Your task to perform on an android device: turn on the 24-hour format for clock Image 0: 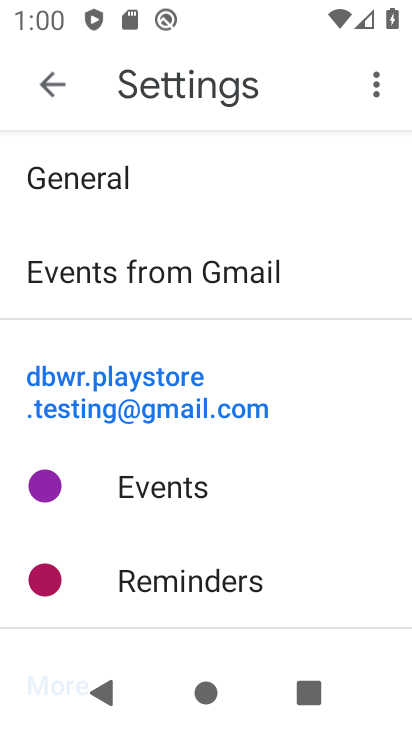
Step 0: press home button
Your task to perform on an android device: turn on the 24-hour format for clock Image 1: 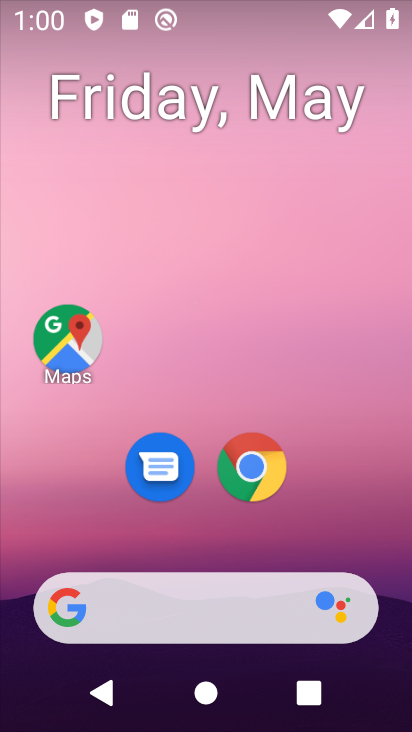
Step 1: drag from (234, 585) to (221, 168)
Your task to perform on an android device: turn on the 24-hour format for clock Image 2: 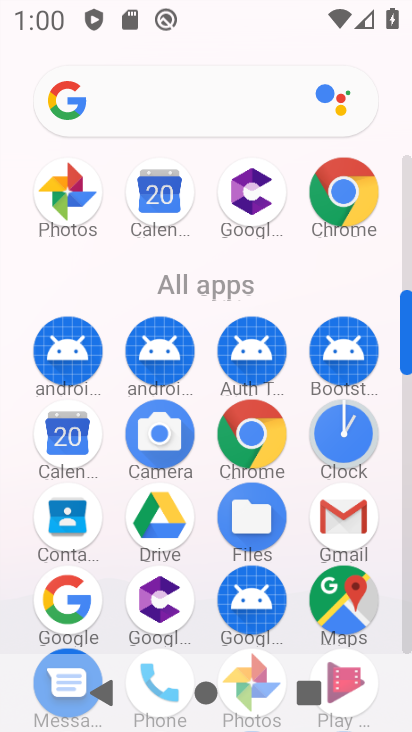
Step 2: click (343, 439)
Your task to perform on an android device: turn on the 24-hour format for clock Image 3: 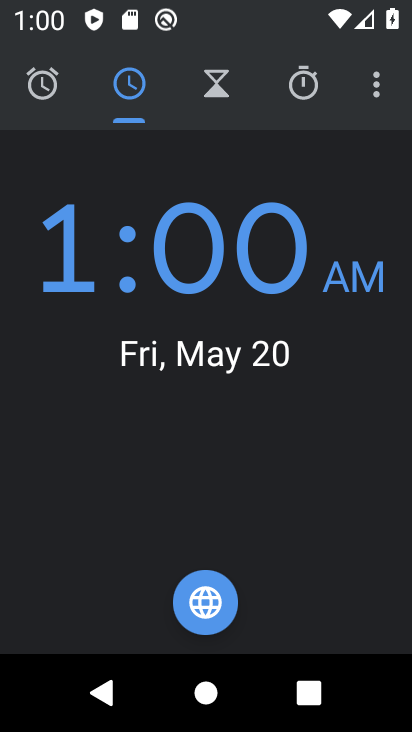
Step 3: click (377, 113)
Your task to perform on an android device: turn on the 24-hour format for clock Image 4: 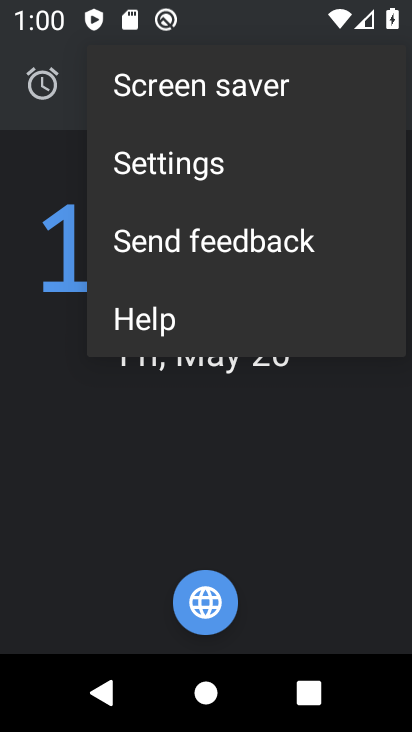
Step 4: click (232, 159)
Your task to perform on an android device: turn on the 24-hour format for clock Image 5: 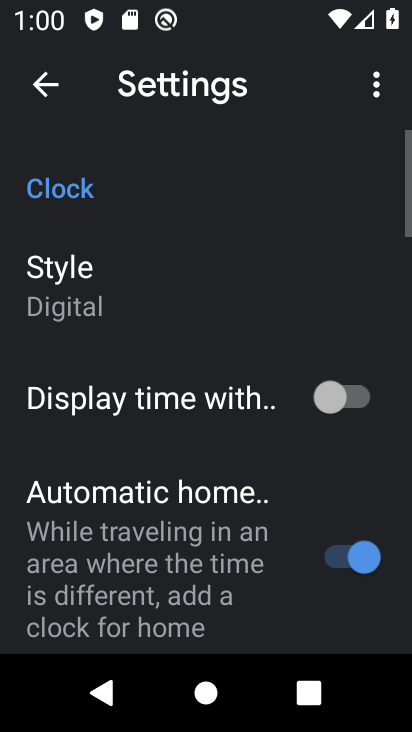
Step 5: drag from (214, 482) to (176, 136)
Your task to perform on an android device: turn on the 24-hour format for clock Image 6: 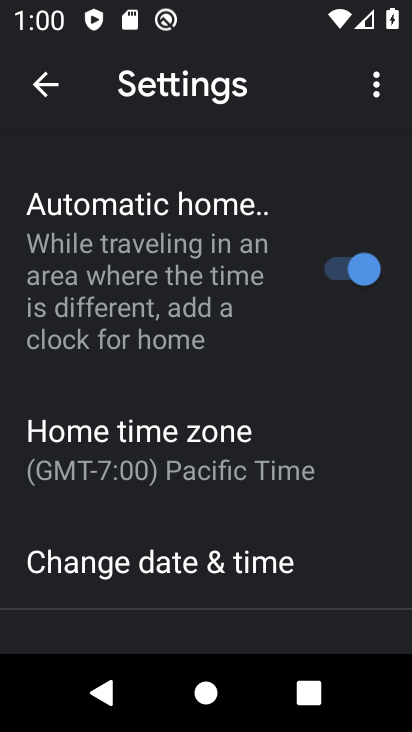
Step 6: click (233, 563)
Your task to perform on an android device: turn on the 24-hour format for clock Image 7: 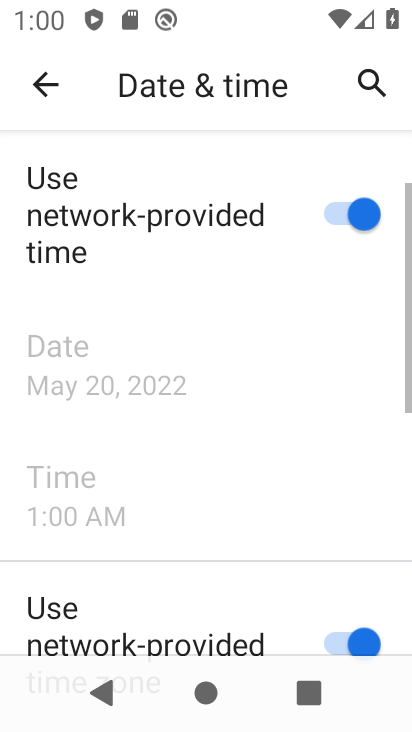
Step 7: drag from (254, 551) to (251, 267)
Your task to perform on an android device: turn on the 24-hour format for clock Image 8: 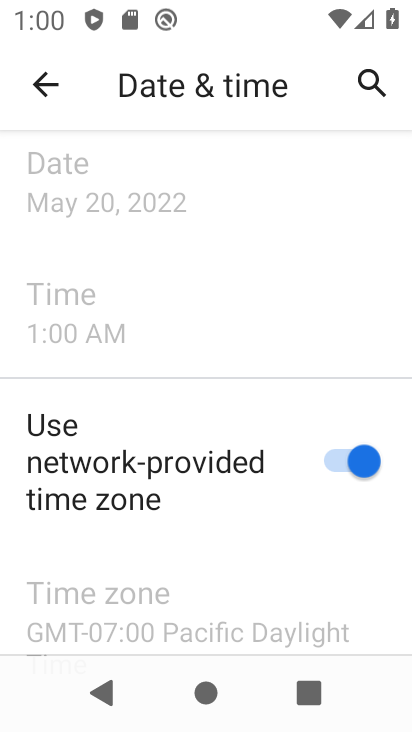
Step 8: drag from (219, 448) to (206, 223)
Your task to perform on an android device: turn on the 24-hour format for clock Image 9: 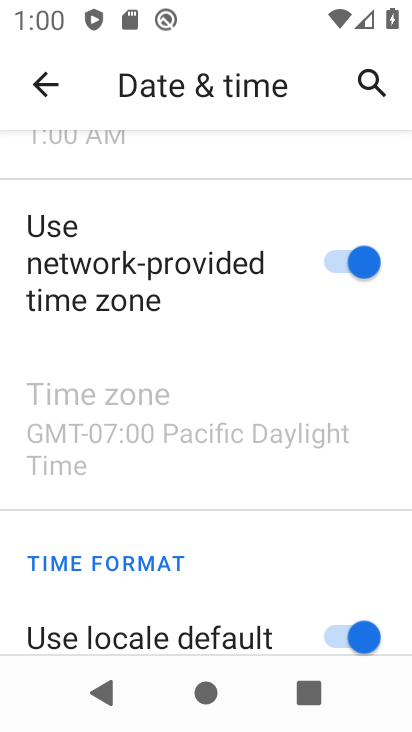
Step 9: drag from (247, 553) to (202, 241)
Your task to perform on an android device: turn on the 24-hour format for clock Image 10: 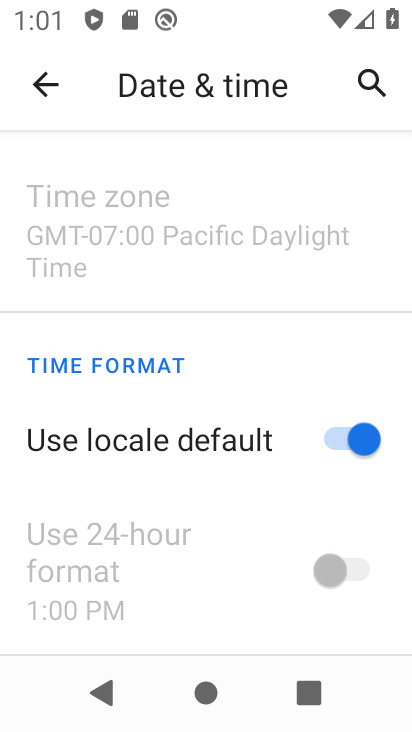
Step 10: click (329, 443)
Your task to perform on an android device: turn on the 24-hour format for clock Image 11: 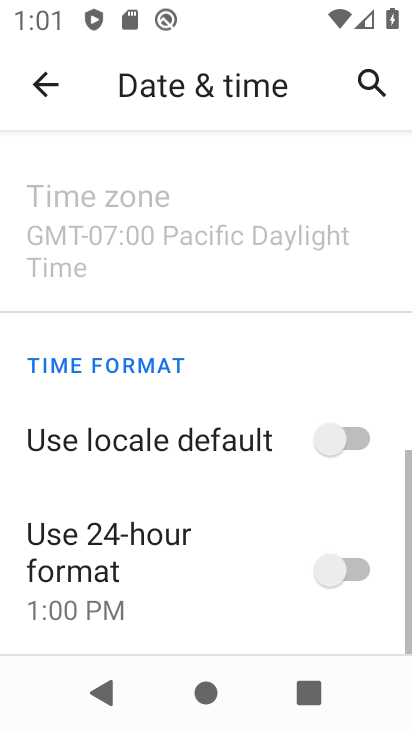
Step 11: click (348, 569)
Your task to perform on an android device: turn on the 24-hour format for clock Image 12: 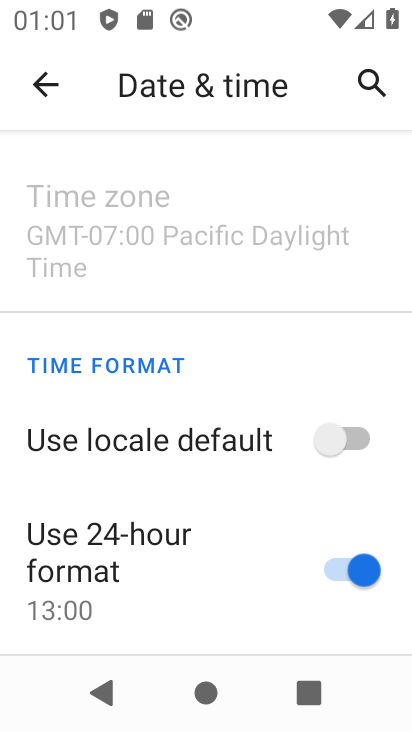
Step 12: task complete